Your task to perform on an android device: toggle data saver in the chrome app Image 0: 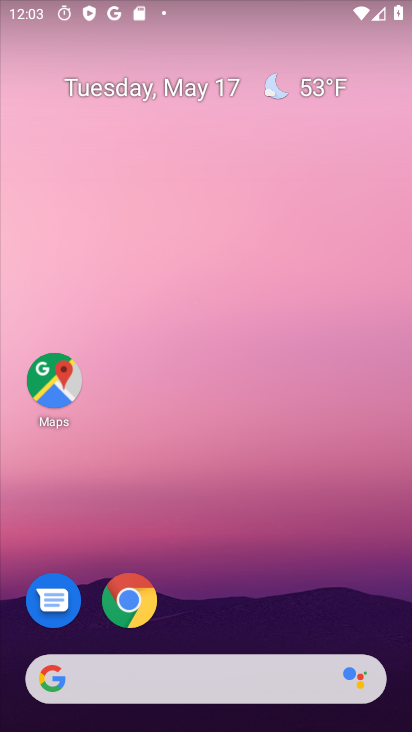
Step 0: click (132, 605)
Your task to perform on an android device: toggle data saver in the chrome app Image 1: 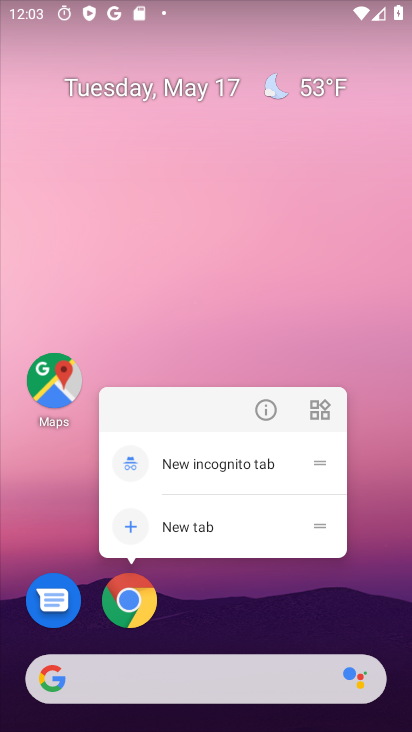
Step 1: click (122, 596)
Your task to perform on an android device: toggle data saver in the chrome app Image 2: 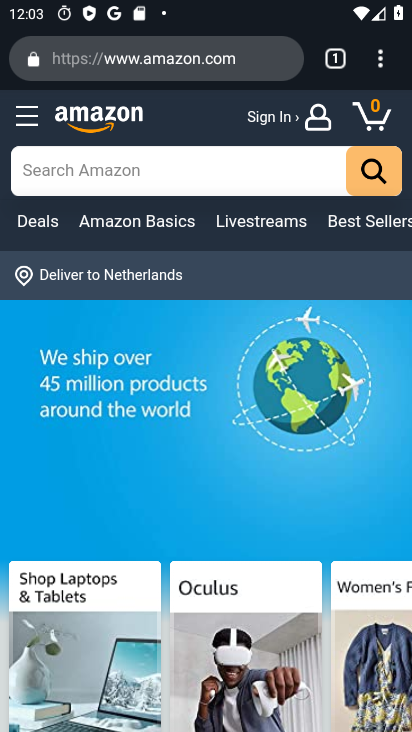
Step 2: click (376, 62)
Your task to perform on an android device: toggle data saver in the chrome app Image 3: 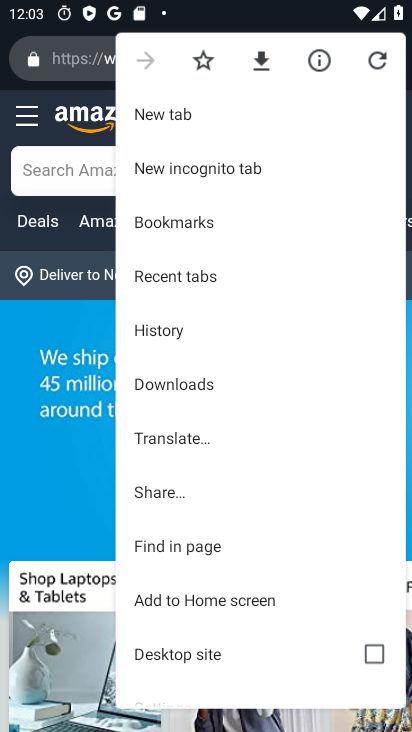
Step 3: drag from (262, 592) to (277, 347)
Your task to perform on an android device: toggle data saver in the chrome app Image 4: 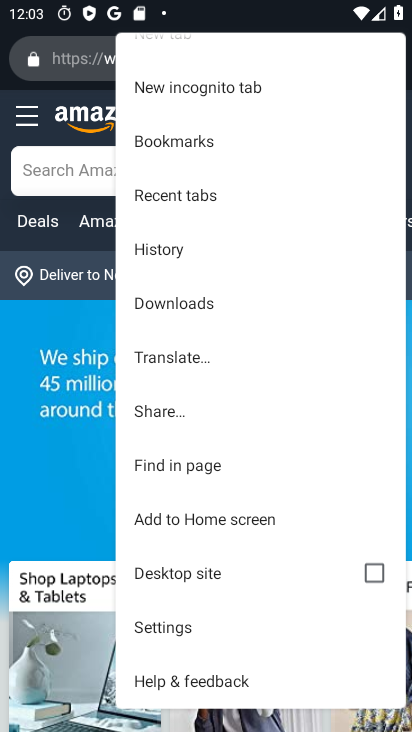
Step 4: click (260, 631)
Your task to perform on an android device: toggle data saver in the chrome app Image 5: 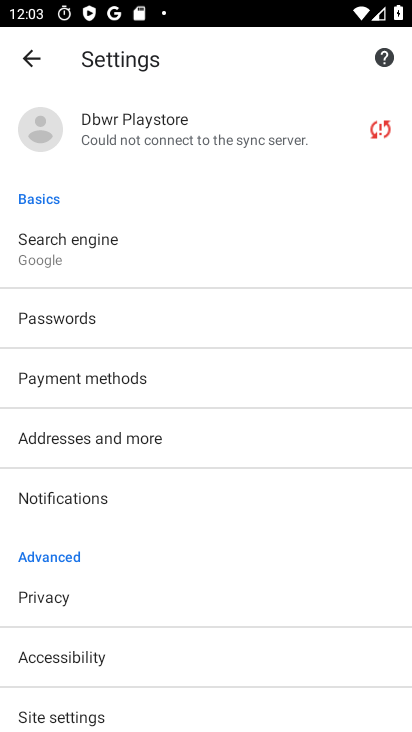
Step 5: drag from (136, 707) to (127, 429)
Your task to perform on an android device: toggle data saver in the chrome app Image 6: 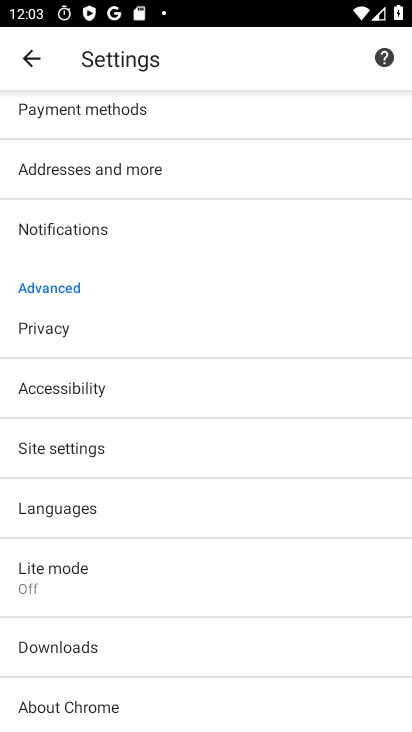
Step 6: drag from (92, 650) to (73, 505)
Your task to perform on an android device: toggle data saver in the chrome app Image 7: 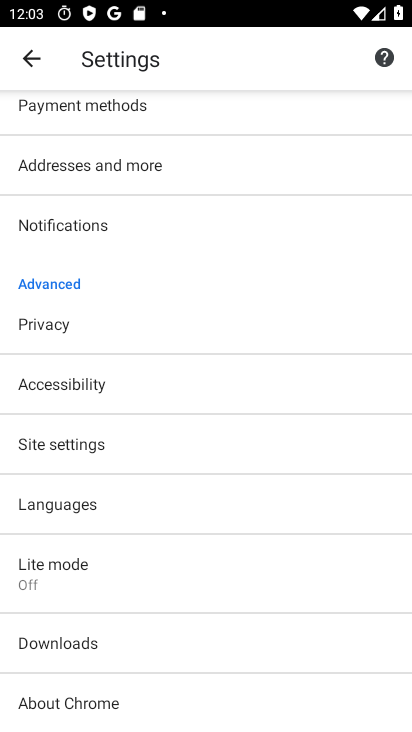
Step 7: click (126, 572)
Your task to perform on an android device: toggle data saver in the chrome app Image 8: 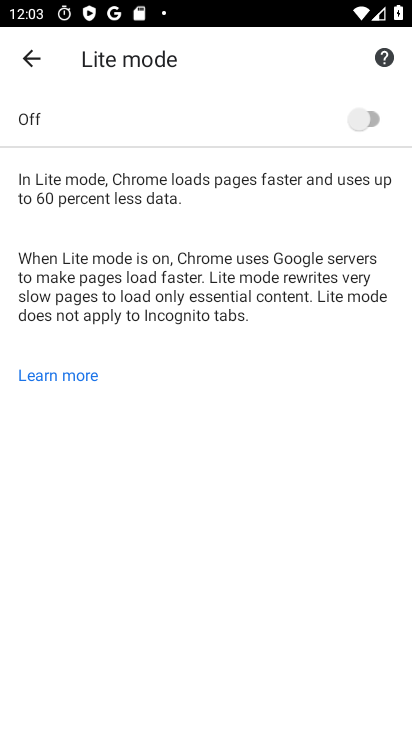
Step 8: click (368, 109)
Your task to perform on an android device: toggle data saver in the chrome app Image 9: 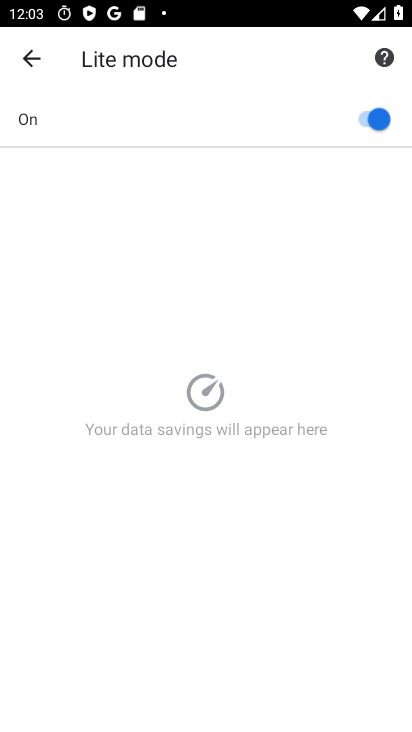
Step 9: task complete